Your task to perform on an android device: add a contact Image 0: 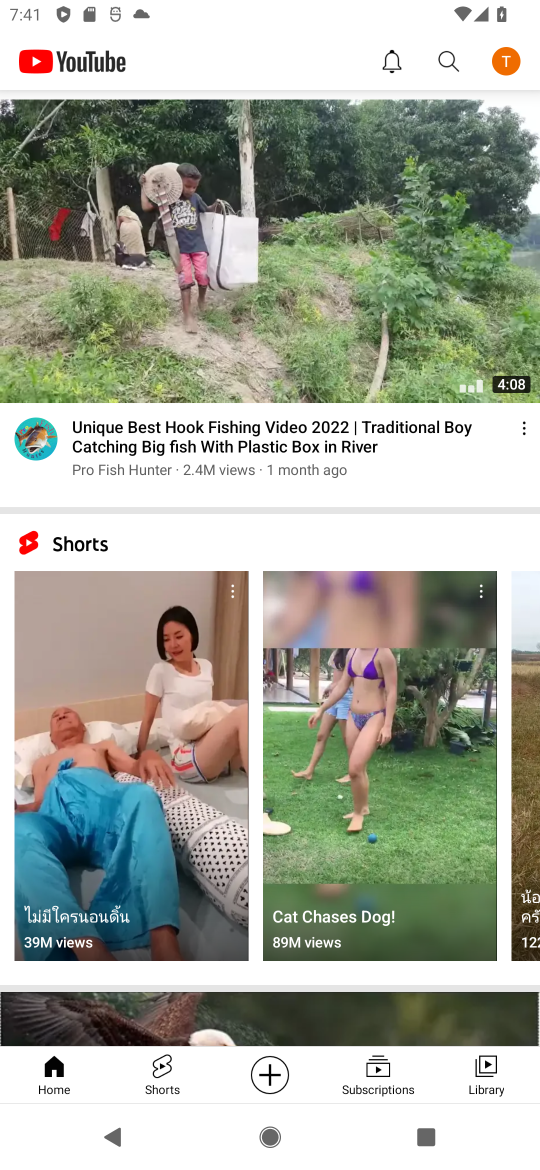
Step 0: press home button
Your task to perform on an android device: add a contact Image 1: 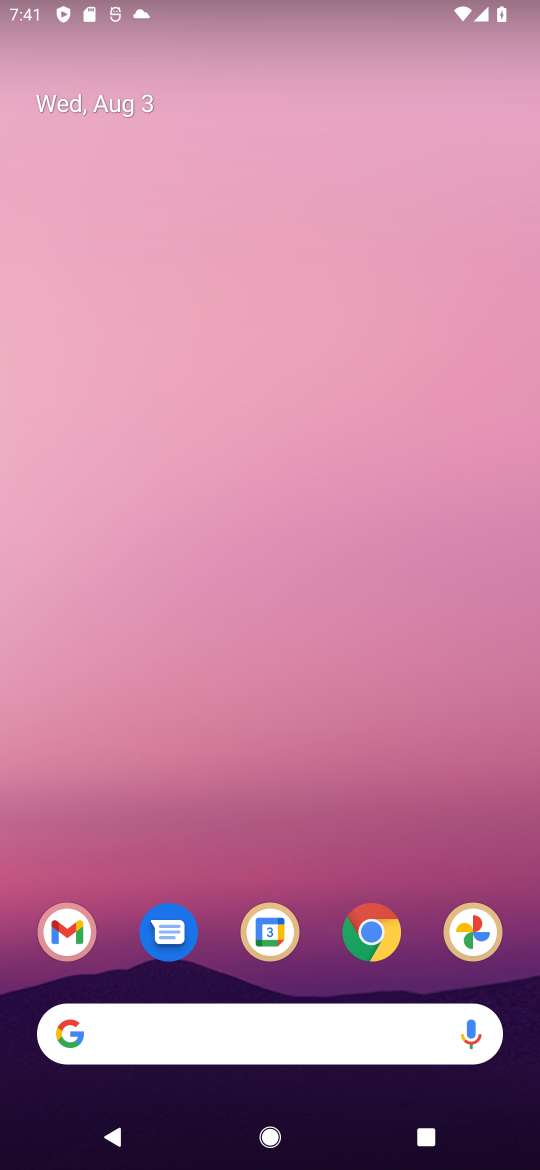
Step 1: drag from (199, 1119) to (365, 102)
Your task to perform on an android device: add a contact Image 2: 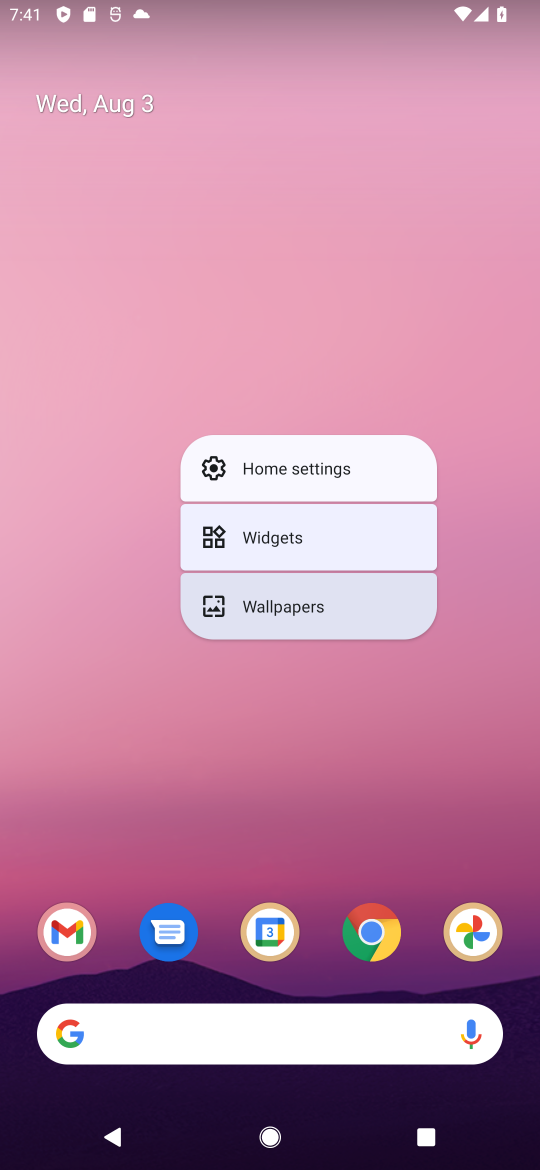
Step 2: drag from (335, 990) to (436, 380)
Your task to perform on an android device: add a contact Image 3: 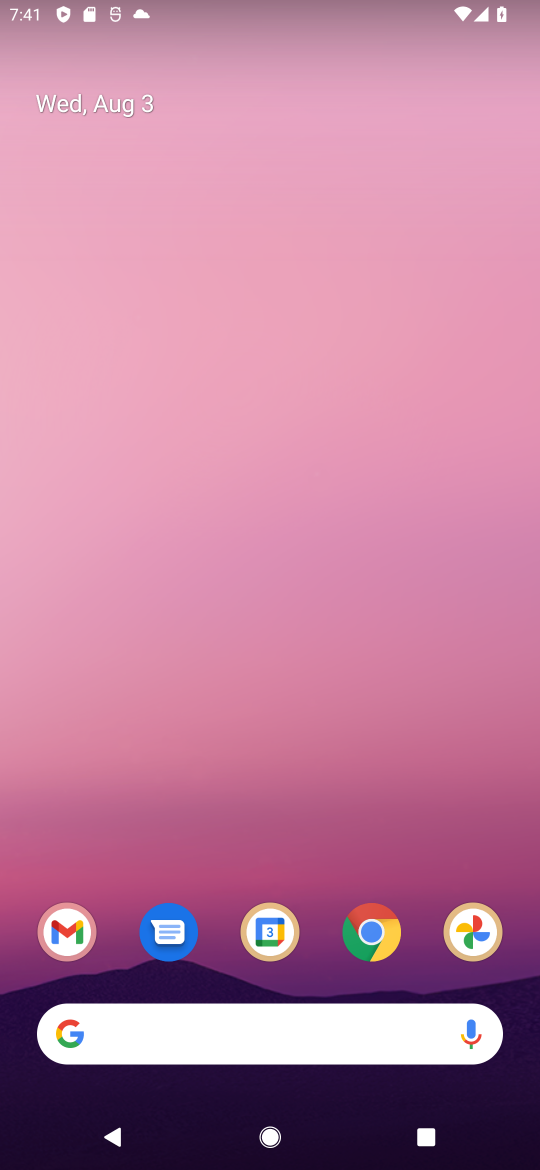
Step 3: drag from (172, 1065) to (403, 232)
Your task to perform on an android device: add a contact Image 4: 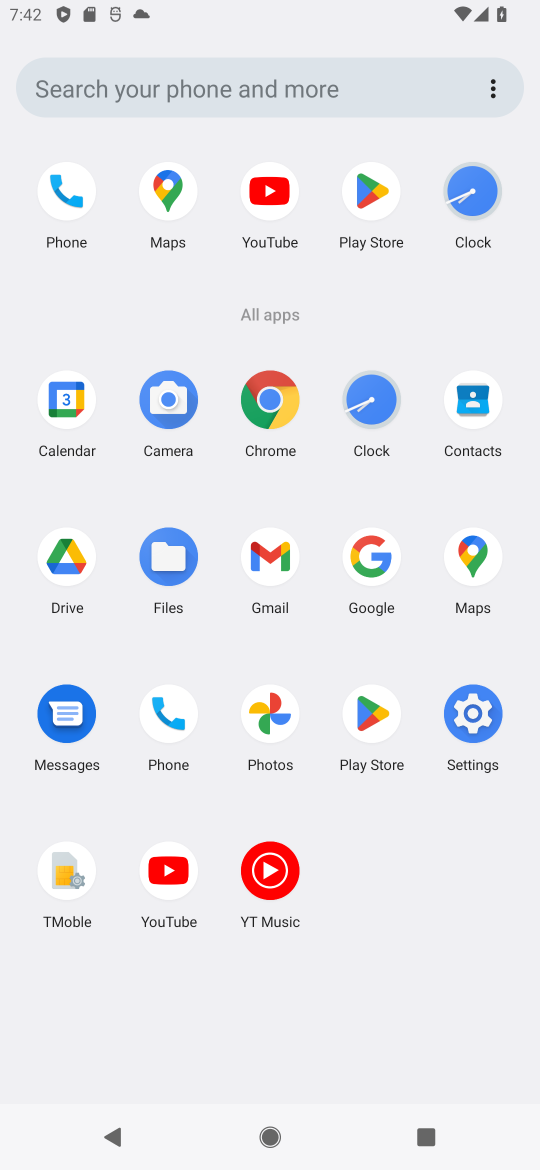
Step 4: click (471, 412)
Your task to perform on an android device: add a contact Image 5: 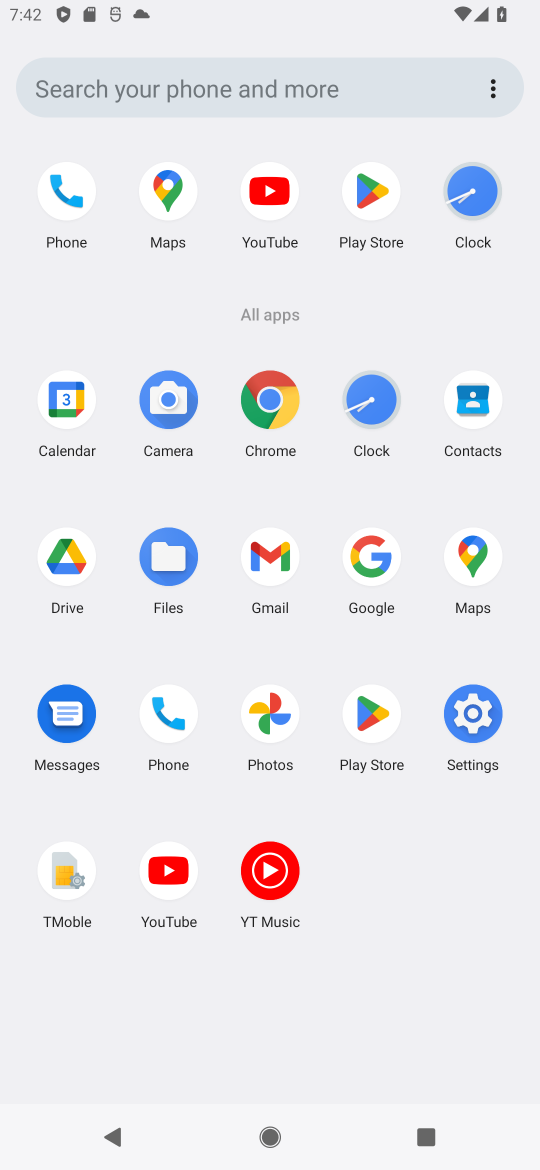
Step 5: click (471, 412)
Your task to perform on an android device: add a contact Image 6: 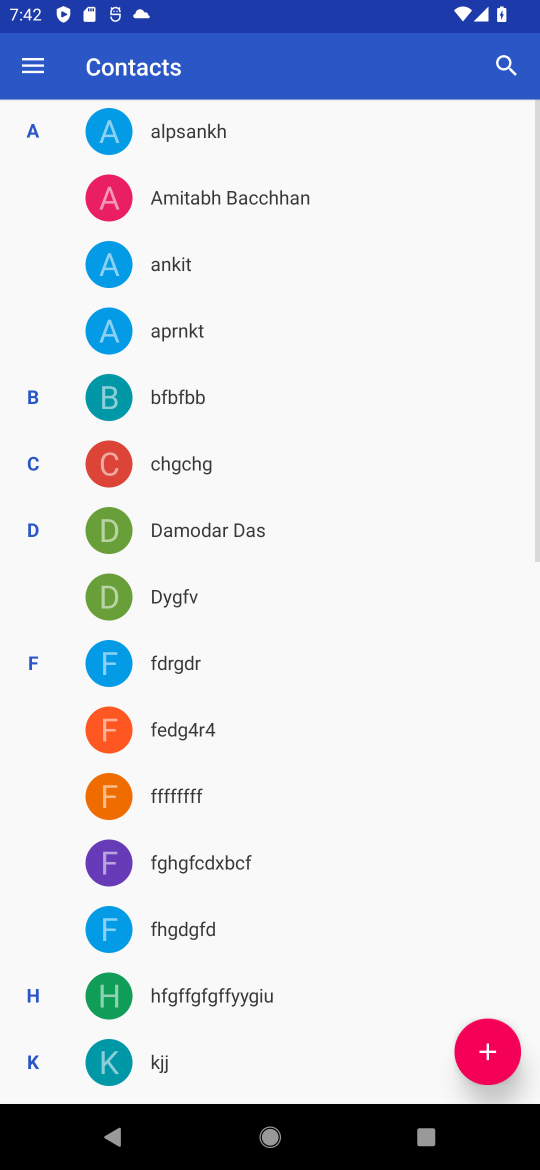
Step 6: click (481, 1074)
Your task to perform on an android device: add a contact Image 7: 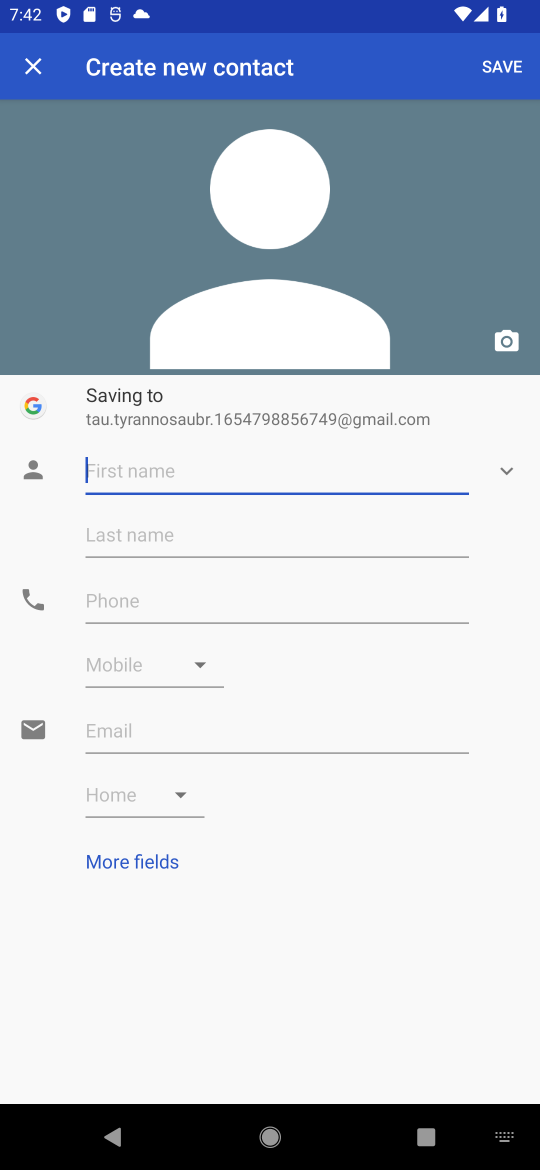
Step 7: type "hjvjv"
Your task to perform on an android device: add a contact Image 8: 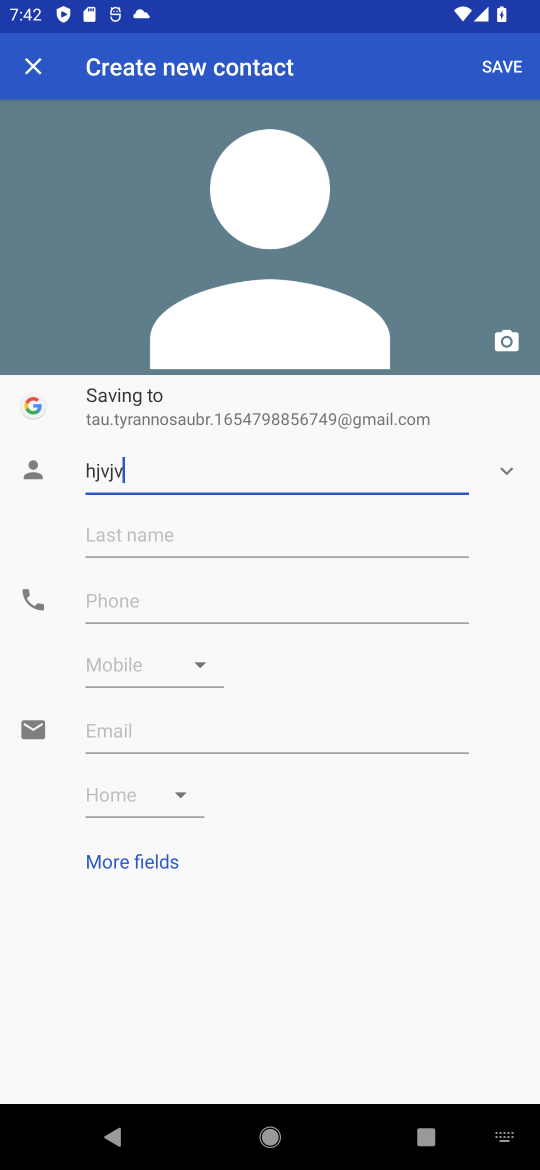
Step 8: click (179, 592)
Your task to perform on an android device: add a contact Image 9: 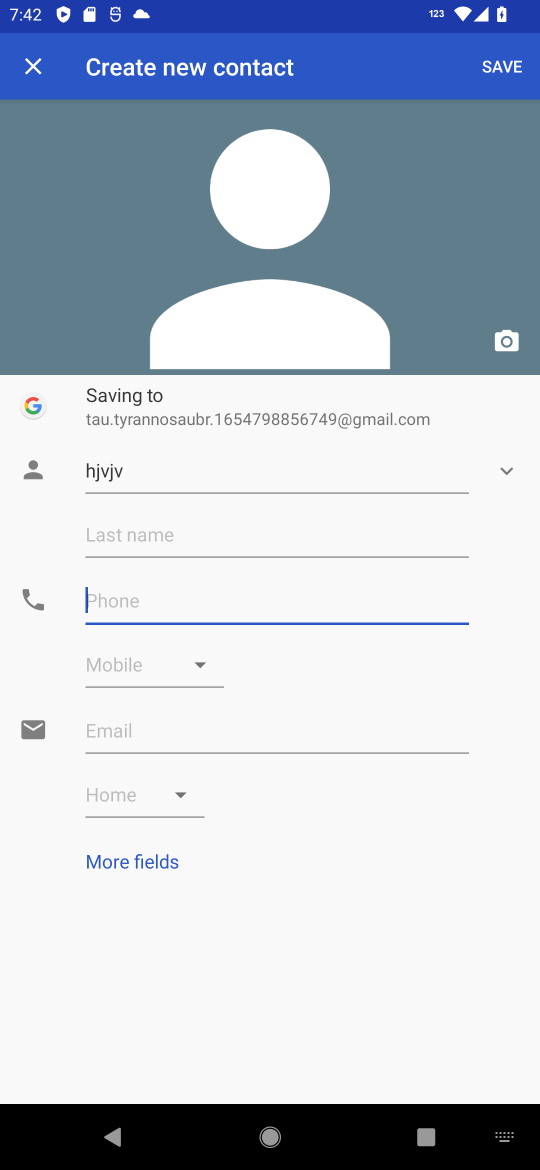
Step 9: type "5678"
Your task to perform on an android device: add a contact Image 10: 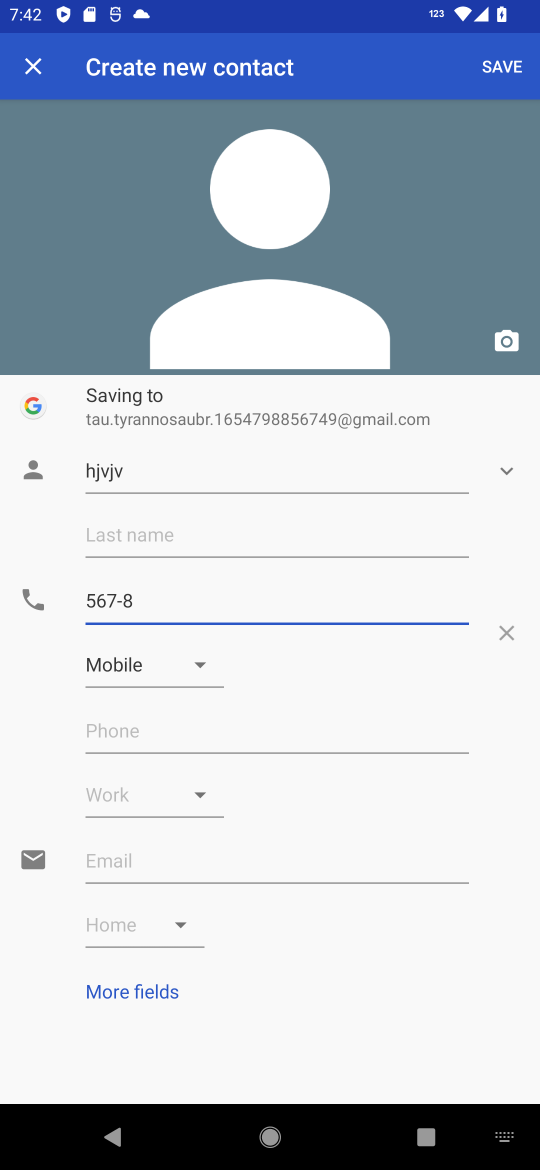
Step 10: click (508, 70)
Your task to perform on an android device: add a contact Image 11: 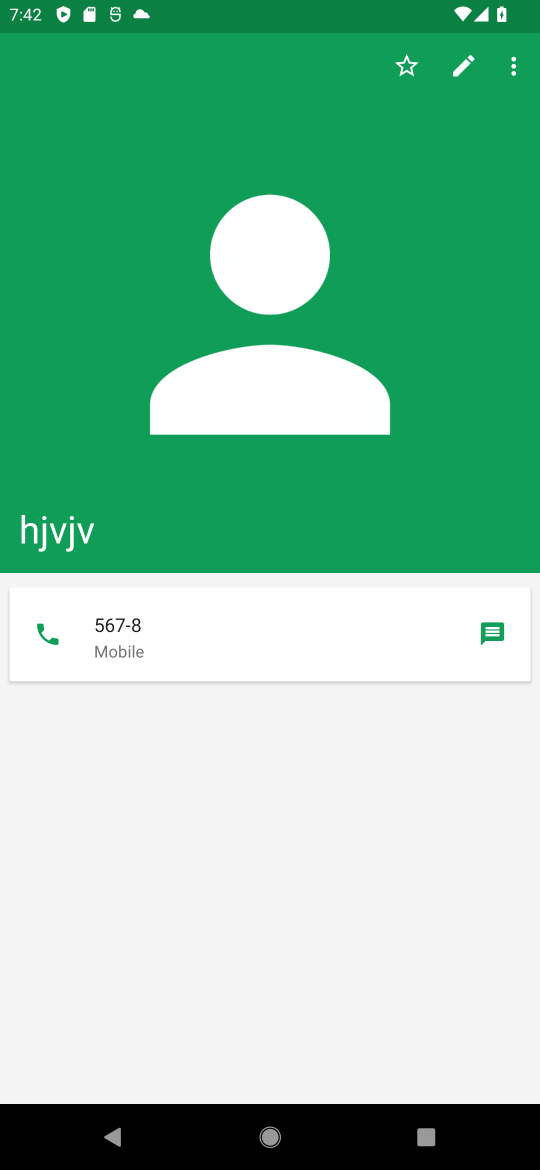
Step 11: task complete